Your task to perform on an android device: Go to Google Image 0: 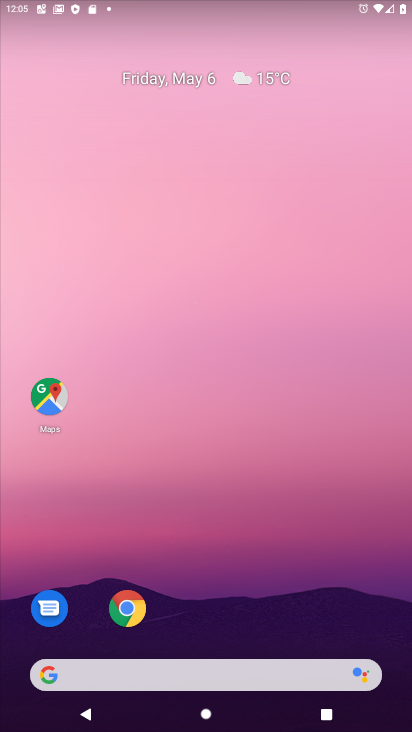
Step 0: drag from (212, 610) to (211, 153)
Your task to perform on an android device: Go to Google Image 1: 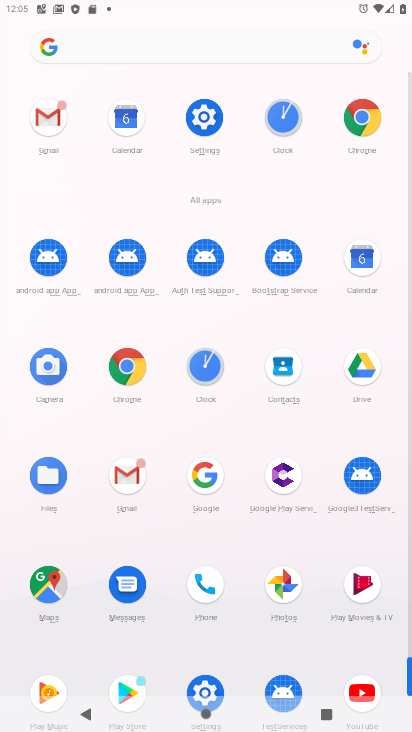
Step 1: click (210, 487)
Your task to perform on an android device: Go to Google Image 2: 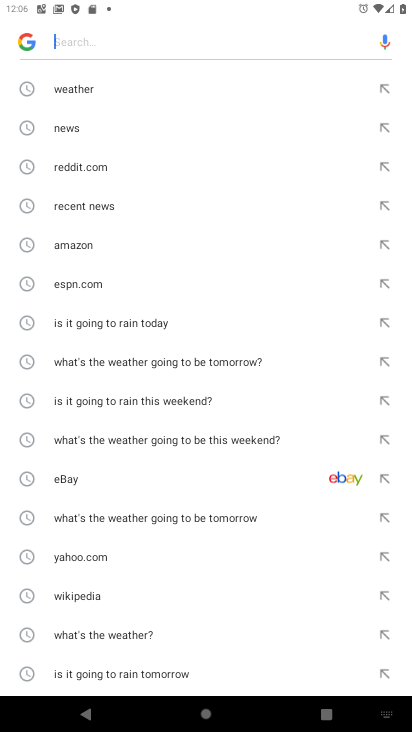
Step 2: task complete